Your task to perform on an android device: visit the assistant section in the google photos Image 0: 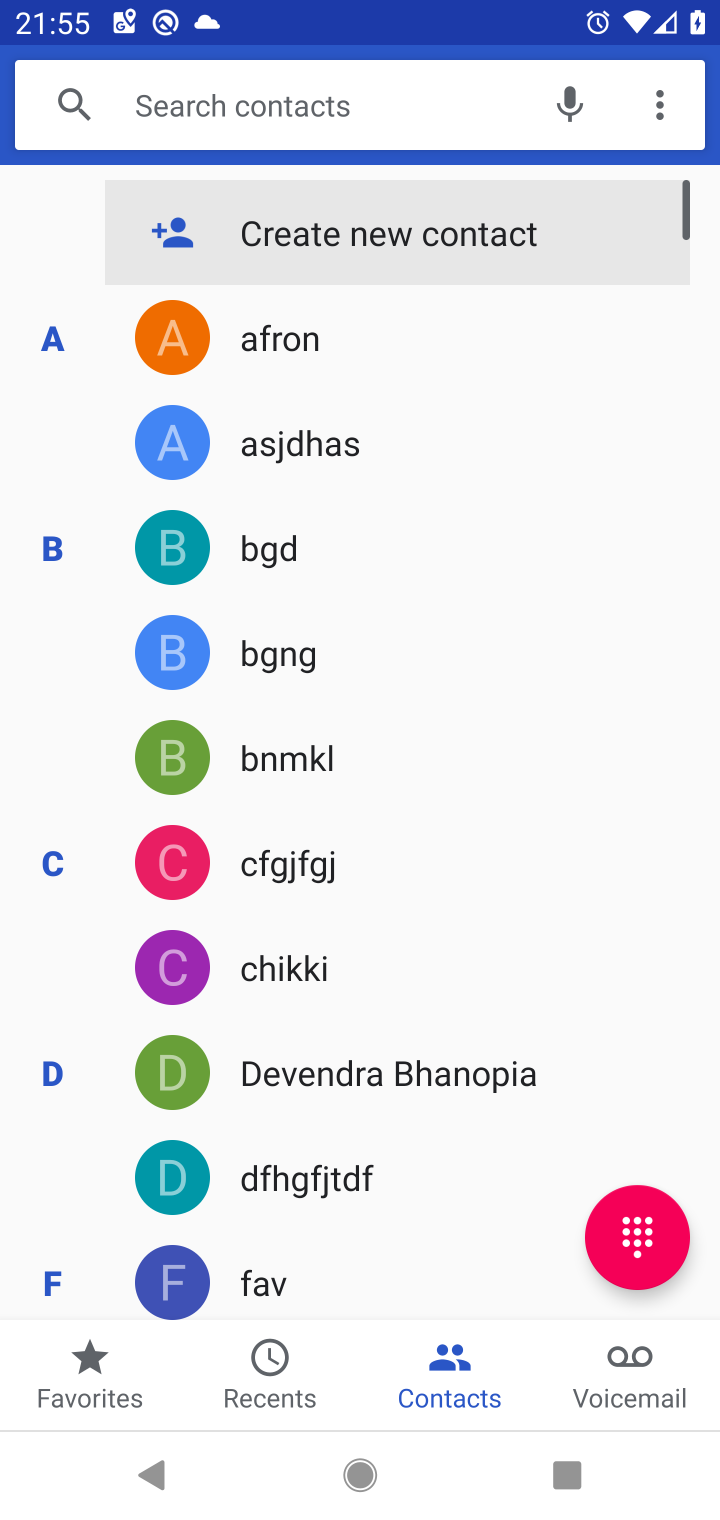
Step 0: press home button
Your task to perform on an android device: visit the assistant section in the google photos Image 1: 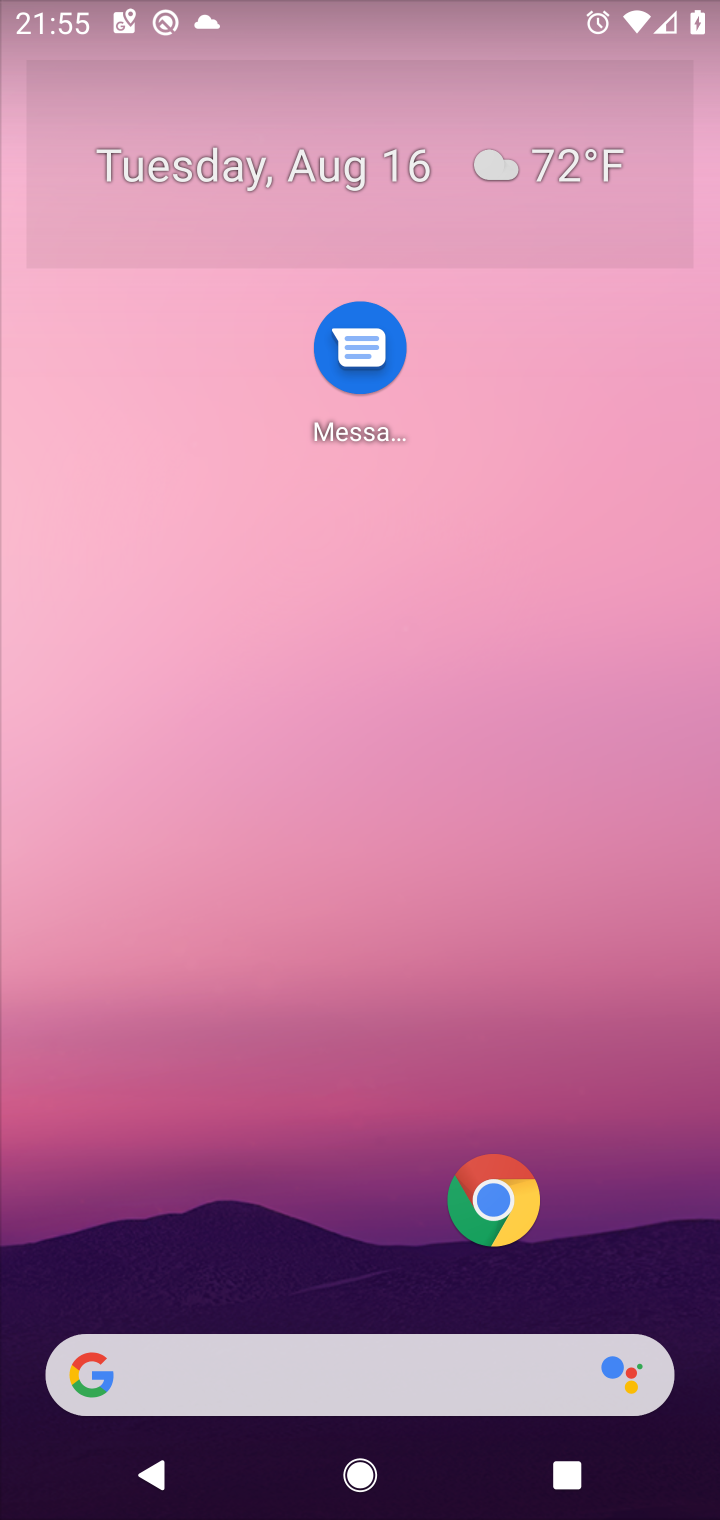
Step 1: drag from (310, 854) to (447, 525)
Your task to perform on an android device: visit the assistant section in the google photos Image 2: 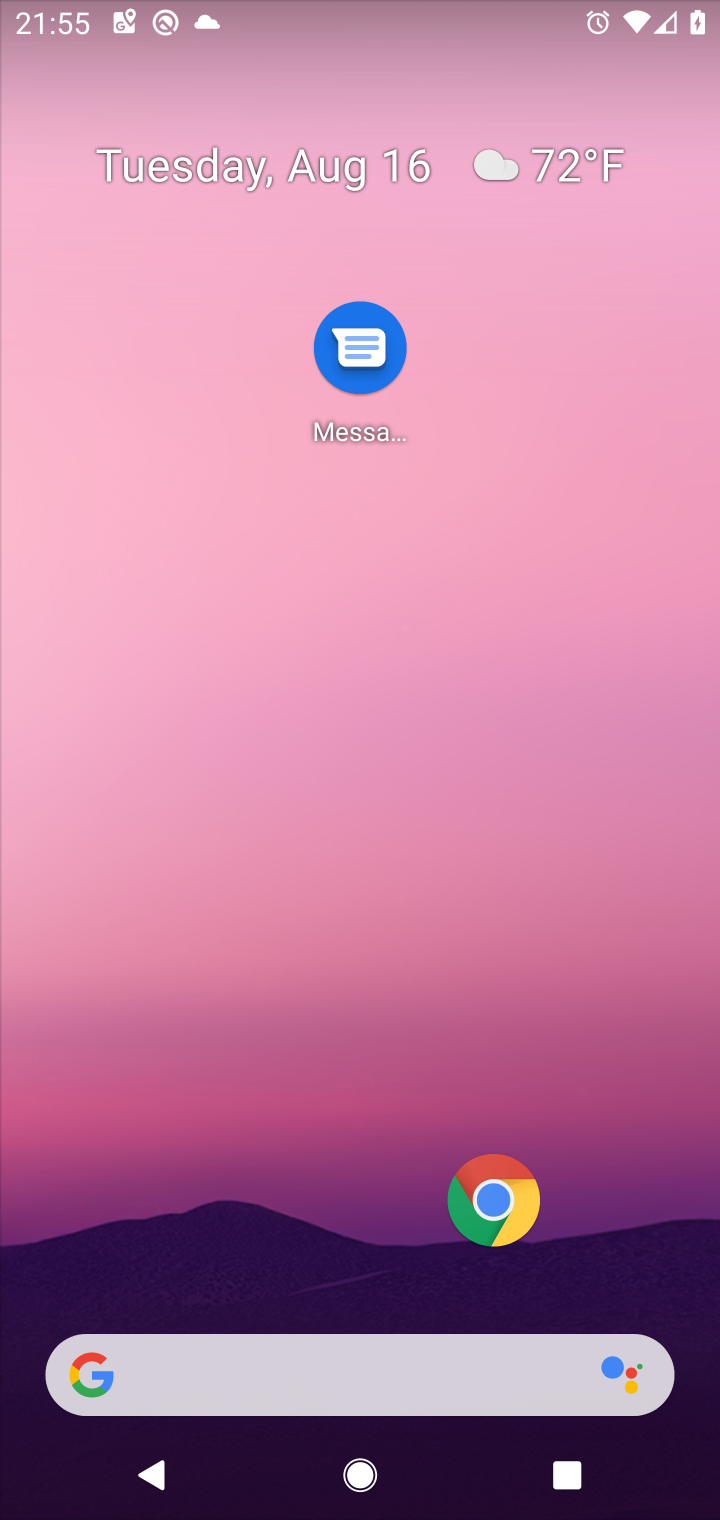
Step 2: drag from (227, 1100) to (665, 196)
Your task to perform on an android device: visit the assistant section in the google photos Image 3: 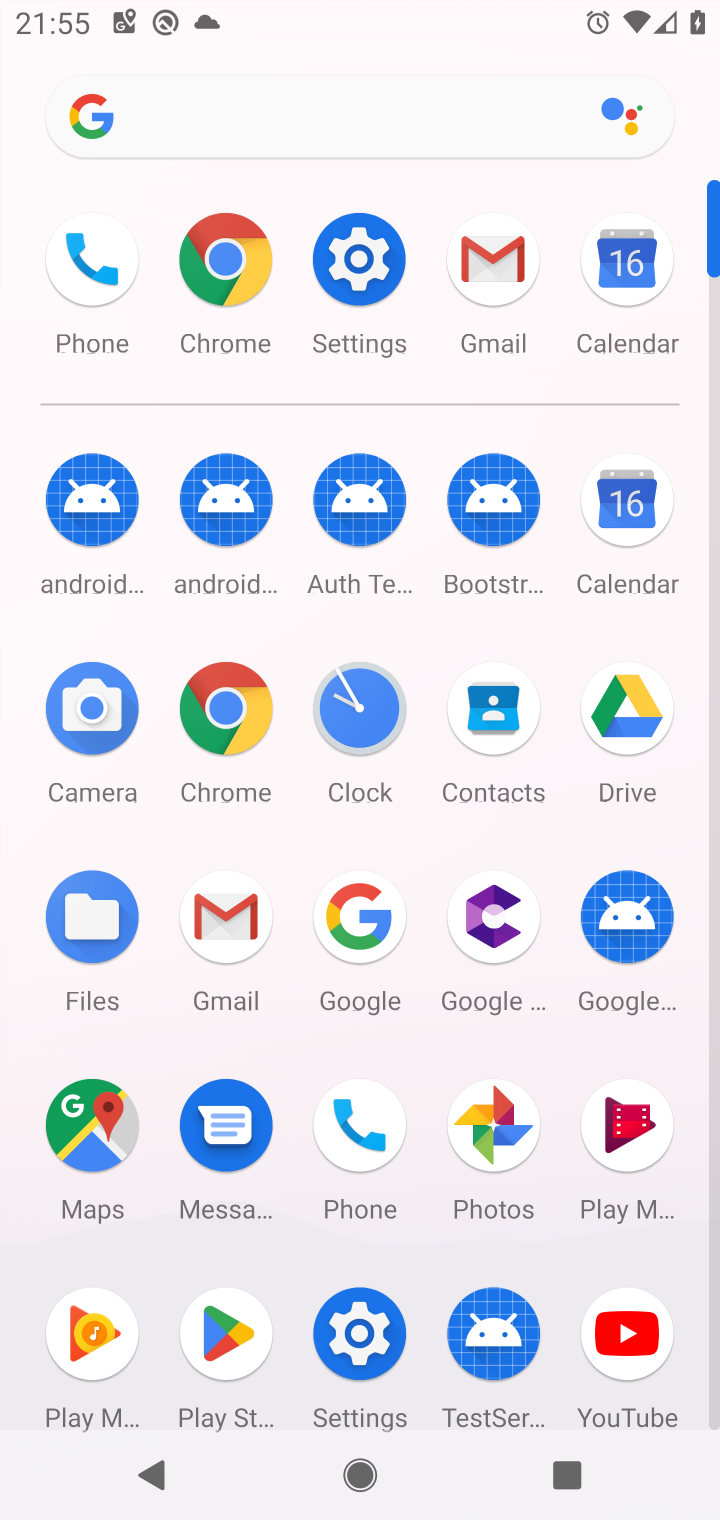
Step 3: click (488, 1128)
Your task to perform on an android device: visit the assistant section in the google photos Image 4: 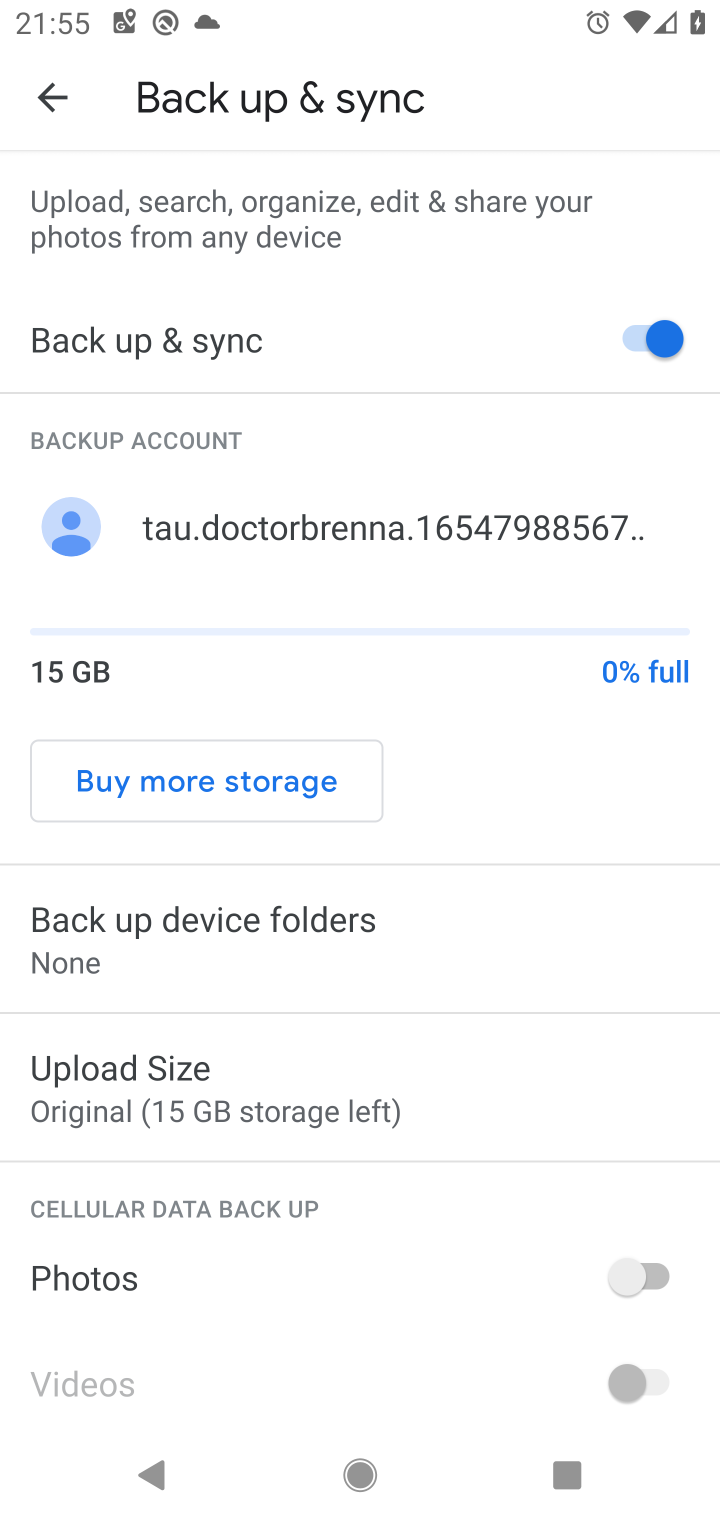
Step 4: click (71, 77)
Your task to perform on an android device: visit the assistant section in the google photos Image 5: 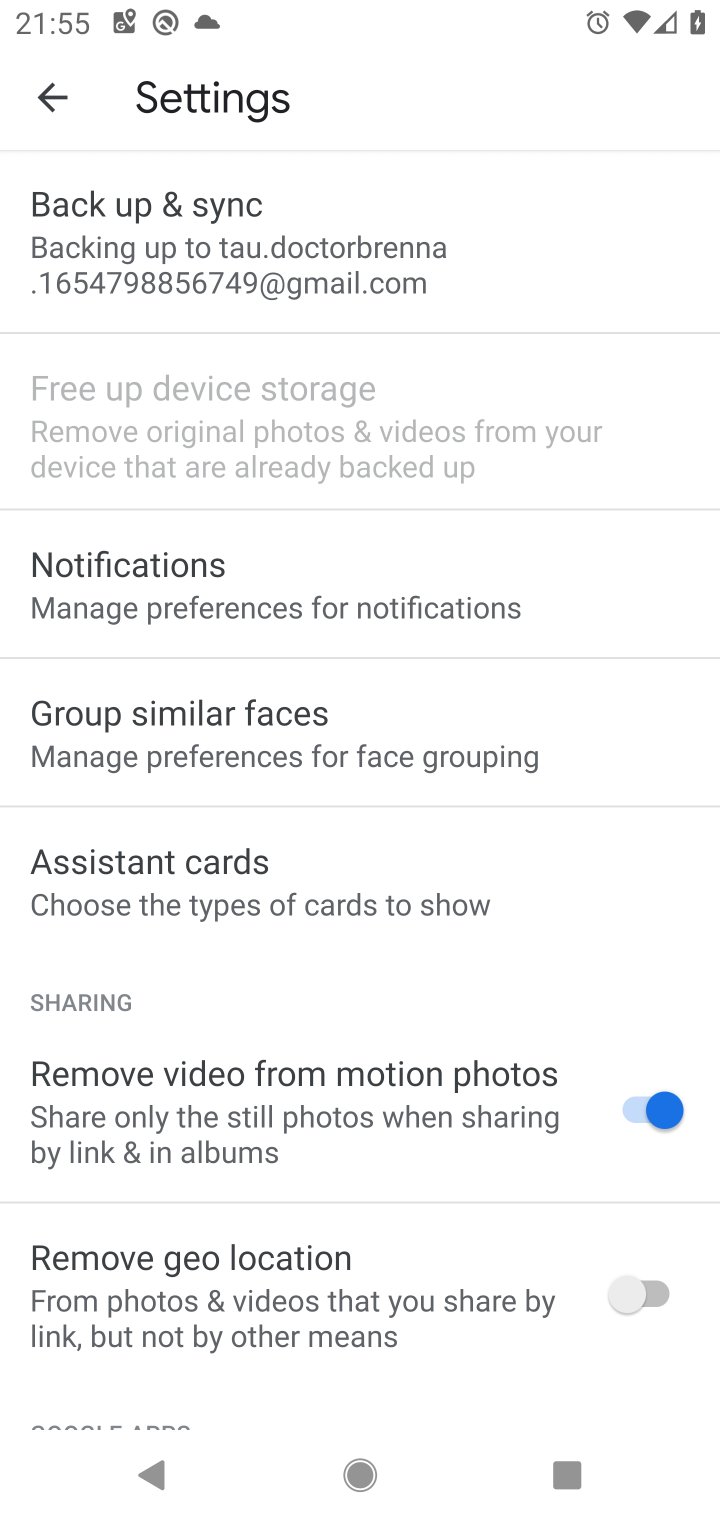
Step 5: click (66, 91)
Your task to perform on an android device: visit the assistant section in the google photos Image 6: 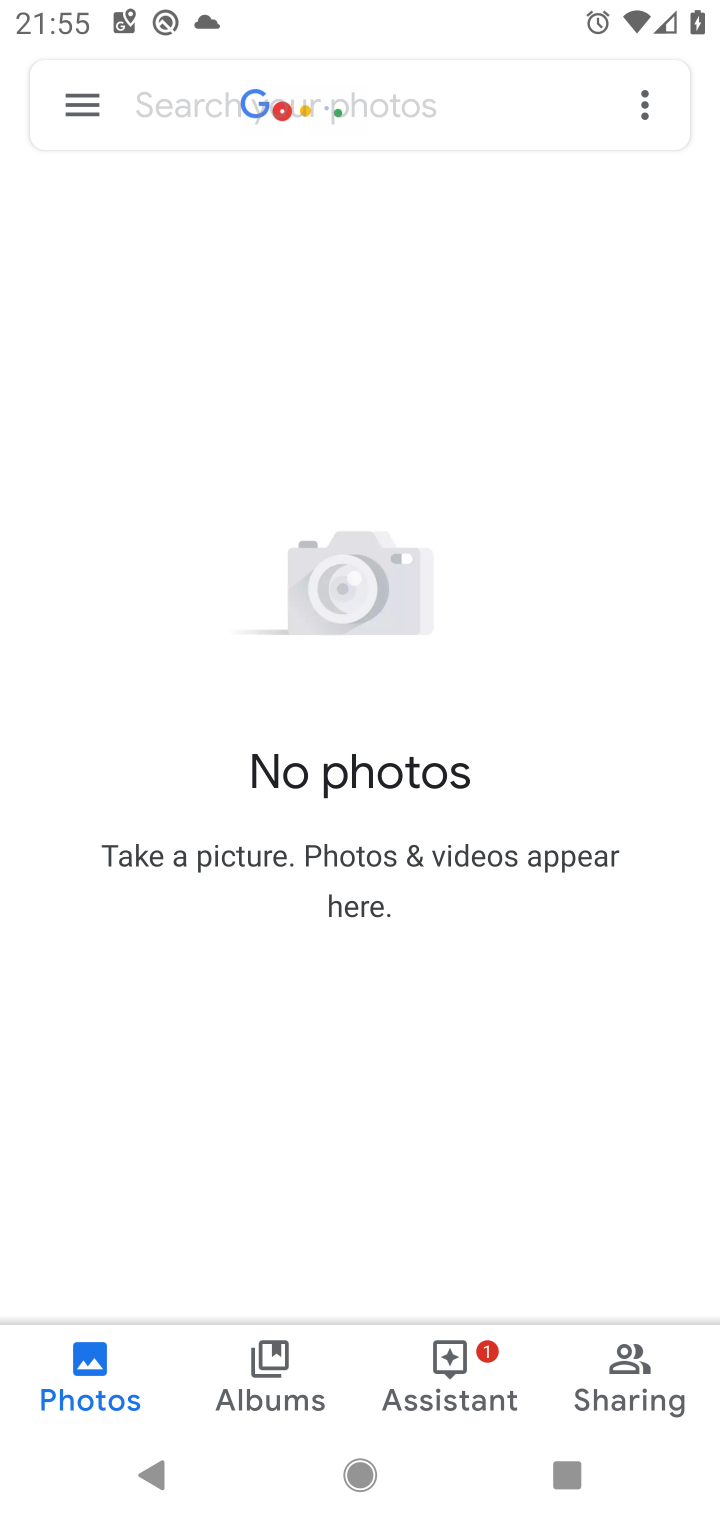
Step 6: click (467, 1353)
Your task to perform on an android device: visit the assistant section in the google photos Image 7: 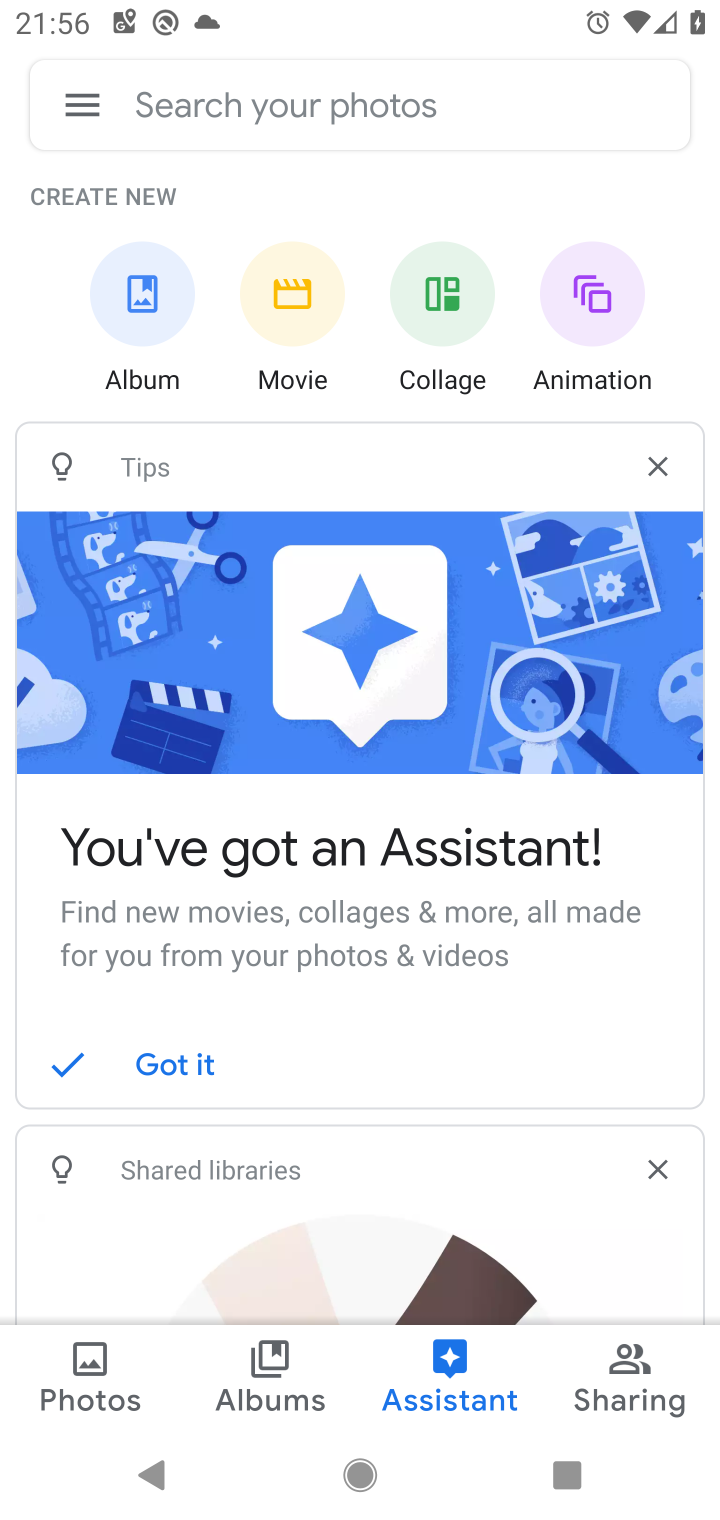
Step 7: task complete